Your task to perform on an android device: Go to Google maps Image 0: 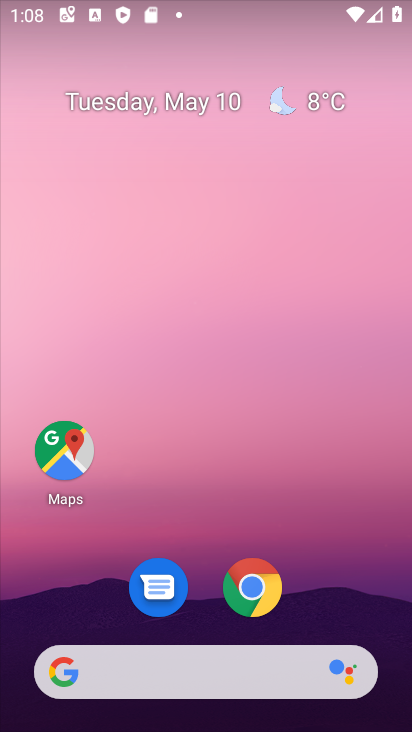
Step 0: click (40, 450)
Your task to perform on an android device: Go to Google maps Image 1: 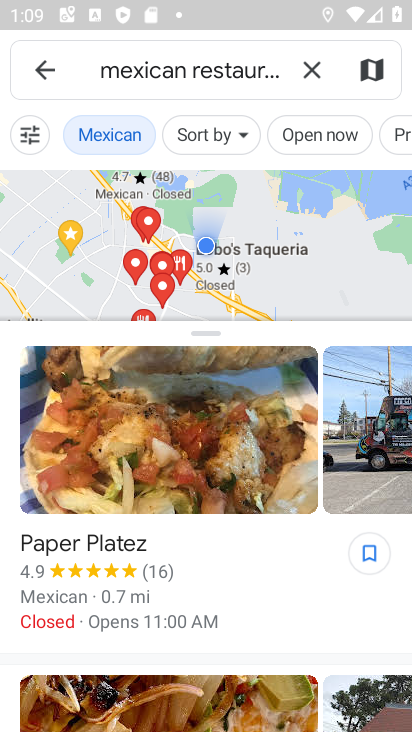
Step 1: task complete